Your task to perform on an android device: show emergency info Image 0: 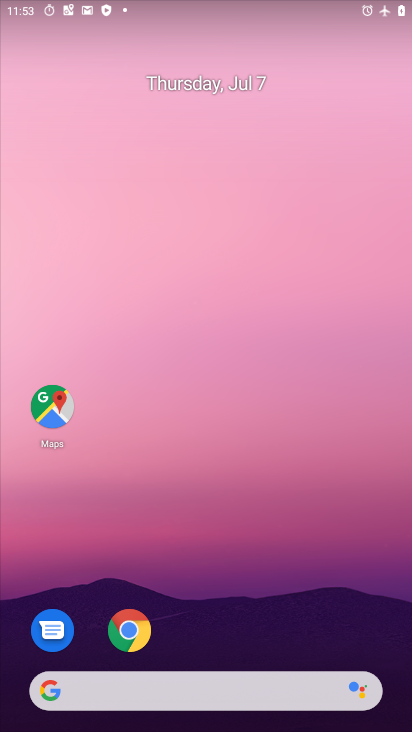
Step 0: drag from (222, 528) to (203, 172)
Your task to perform on an android device: show emergency info Image 1: 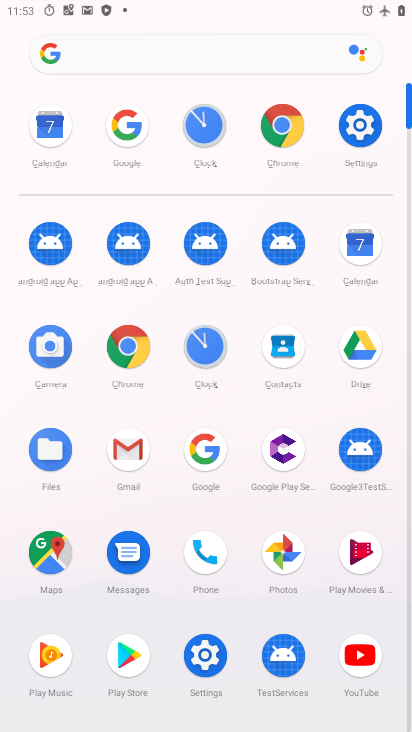
Step 1: click (354, 146)
Your task to perform on an android device: show emergency info Image 2: 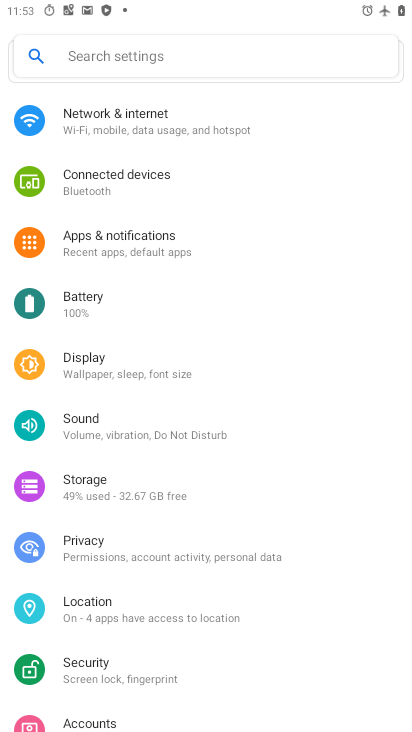
Step 2: drag from (217, 659) to (221, 217)
Your task to perform on an android device: show emergency info Image 3: 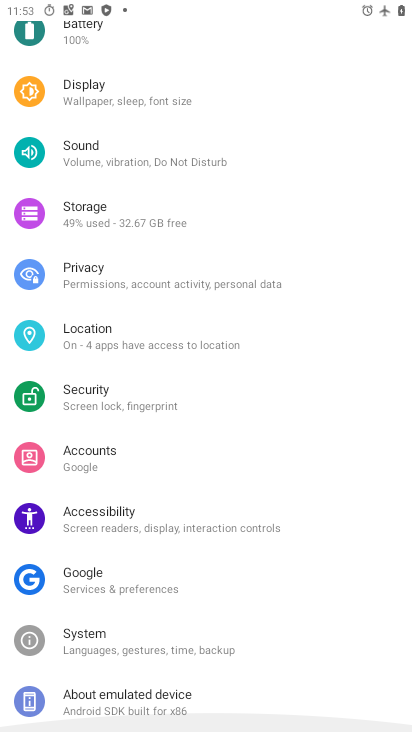
Step 3: drag from (189, 562) to (191, 201)
Your task to perform on an android device: show emergency info Image 4: 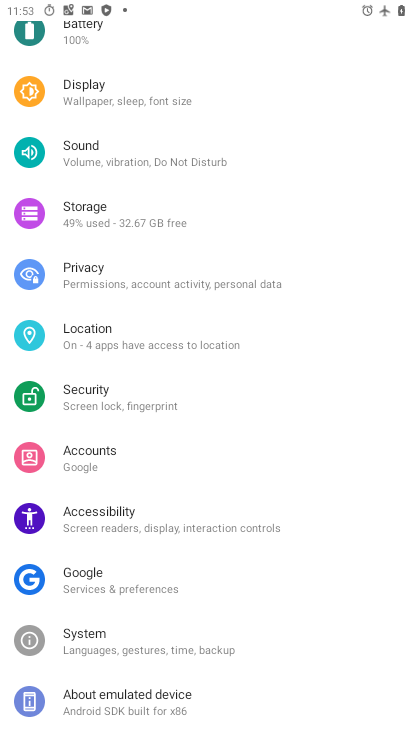
Step 4: click (132, 707)
Your task to perform on an android device: show emergency info Image 5: 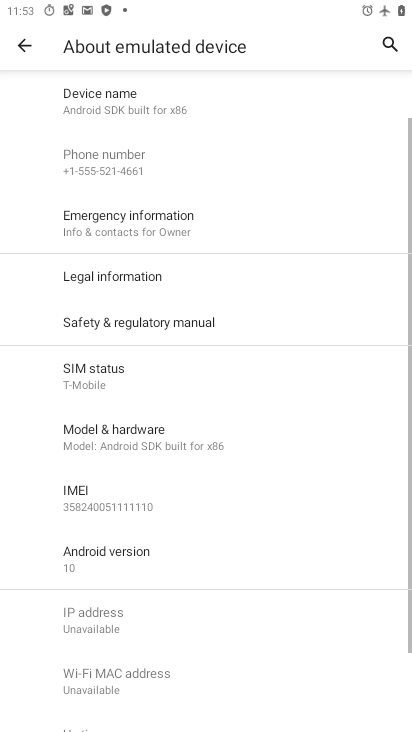
Step 5: click (159, 241)
Your task to perform on an android device: show emergency info Image 6: 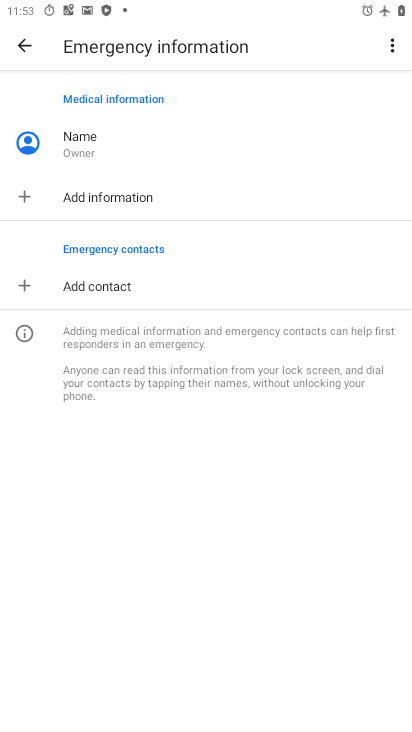
Step 6: task complete